Your task to perform on an android device: check storage Image 0: 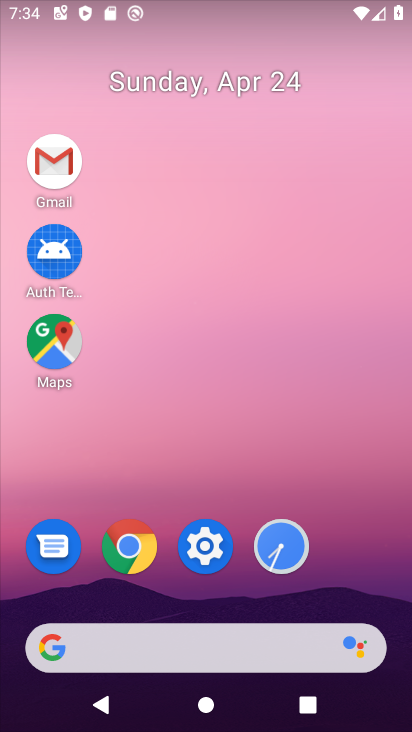
Step 0: click (216, 548)
Your task to perform on an android device: check storage Image 1: 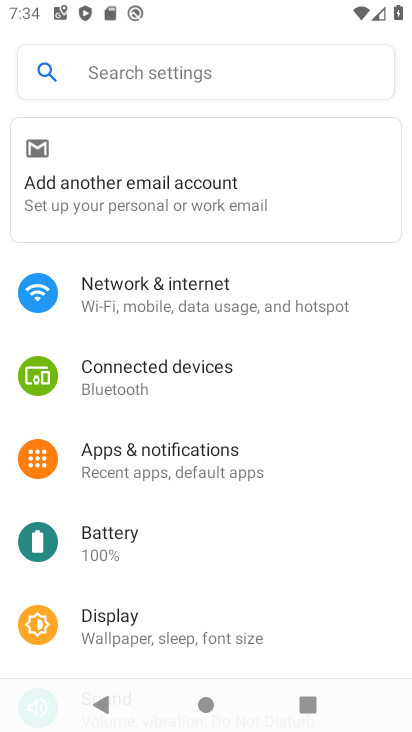
Step 1: drag from (281, 506) to (251, 162)
Your task to perform on an android device: check storage Image 2: 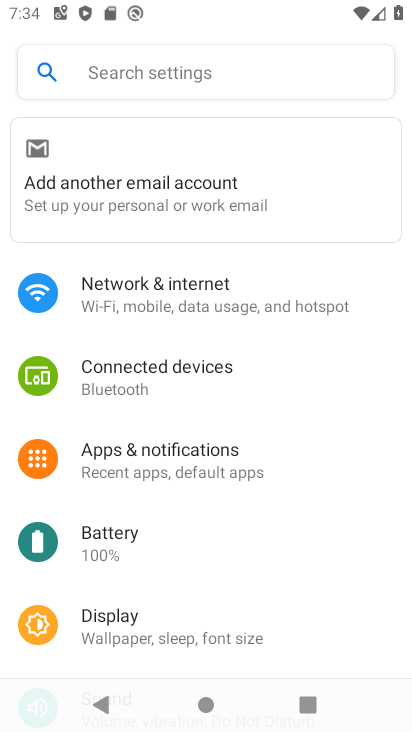
Step 2: drag from (292, 581) to (207, 230)
Your task to perform on an android device: check storage Image 3: 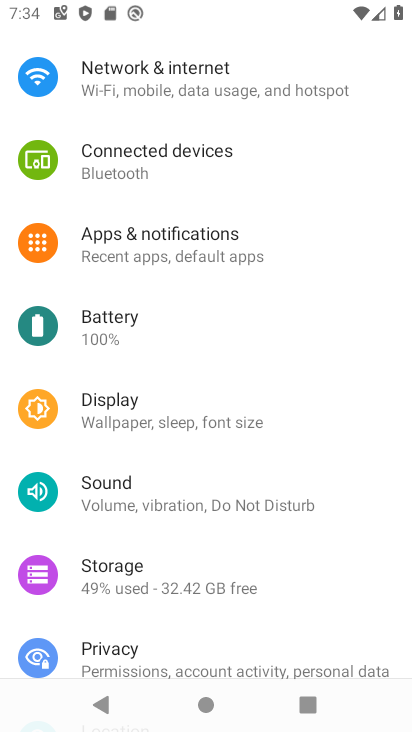
Step 3: click (108, 564)
Your task to perform on an android device: check storage Image 4: 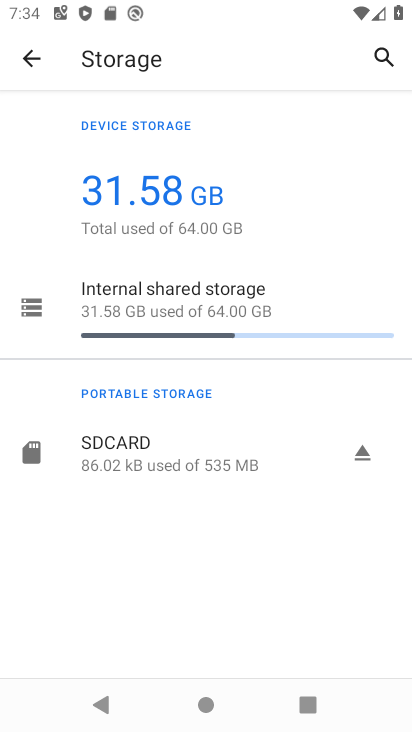
Step 4: task complete